Your task to perform on an android device: Do I have any events today? Image 0: 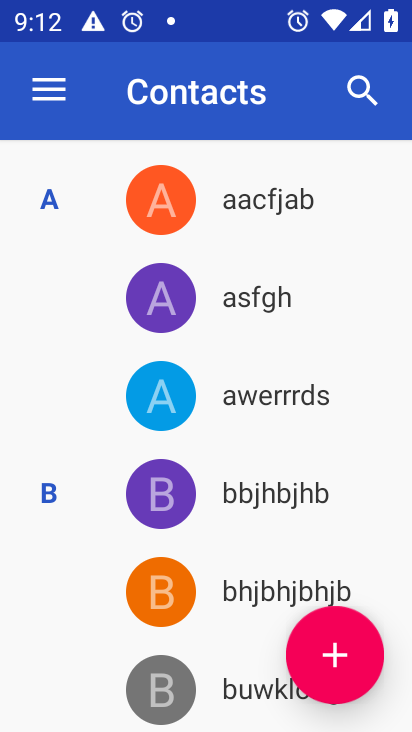
Step 0: press home button
Your task to perform on an android device: Do I have any events today? Image 1: 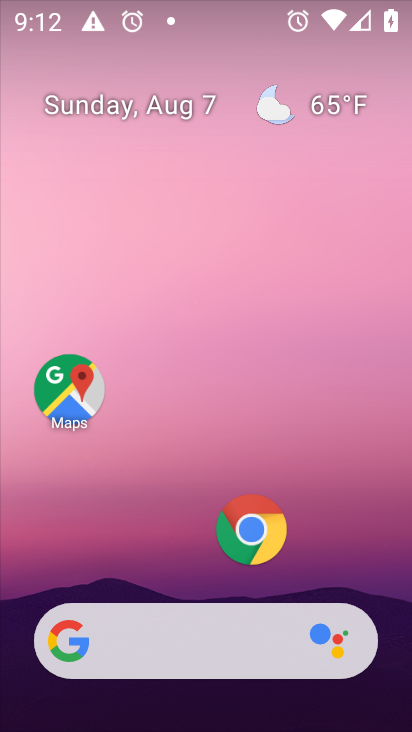
Step 1: drag from (173, 582) to (186, 109)
Your task to perform on an android device: Do I have any events today? Image 2: 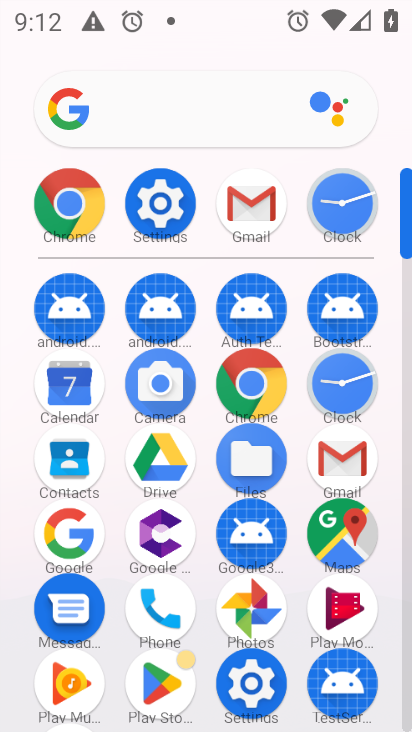
Step 2: click (61, 403)
Your task to perform on an android device: Do I have any events today? Image 3: 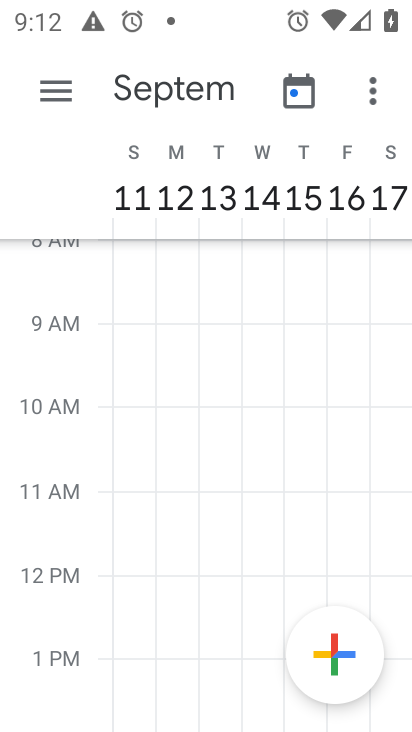
Step 3: click (37, 87)
Your task to perform on an android device: Do I have any events today? Image 4: 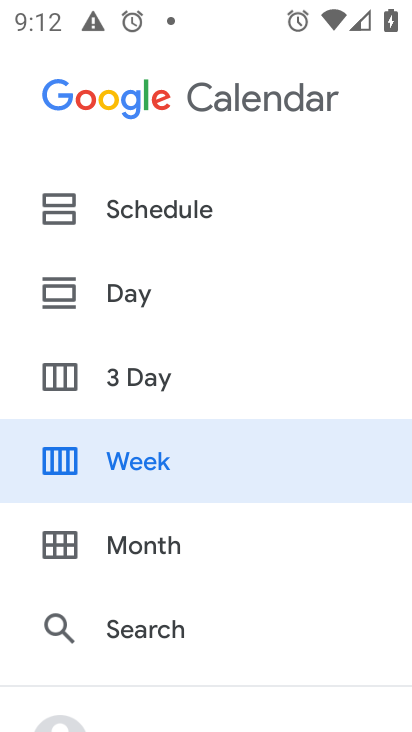
Step 4: drag from (128, 427) to (186, 79)
Your task to perform on an android device: Do I have any events today? Image 5: 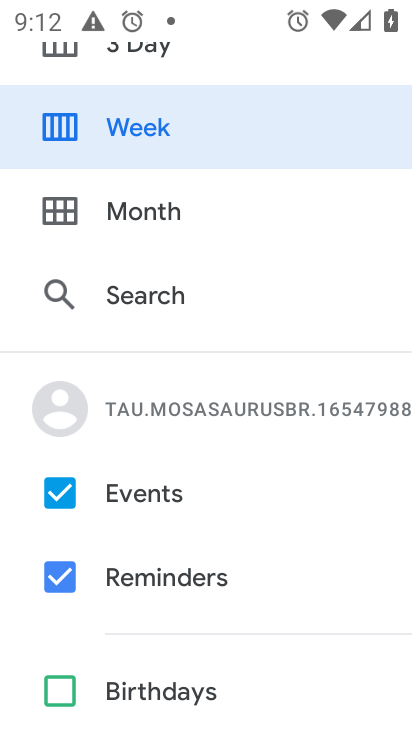
Step 5: click (143, 588)
Your task to perform on an android device: Do I have any events today? Image 6: 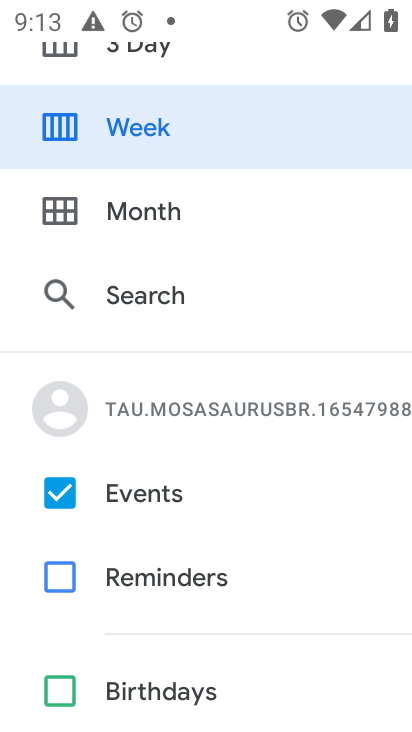
Step 6: drag from (207, 343) to (201, 616)
Your task to perform on an android device: Do I have any events today? Image 7: 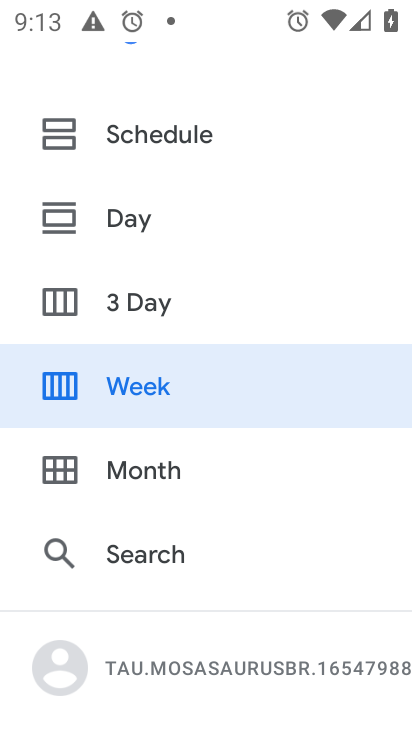
Step 7: click (128, 231)
Your task to perform on an android device: Do I have any events today? Image 8: 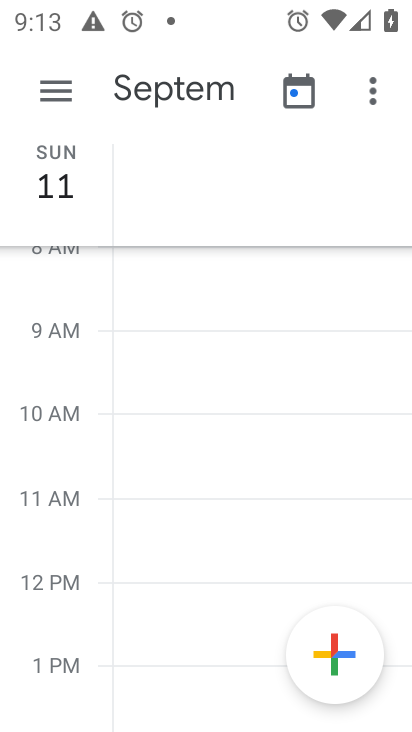
Step 8: task complete